Your task to perform on an android device: turn off notifications settings in the gmail app Image 0: 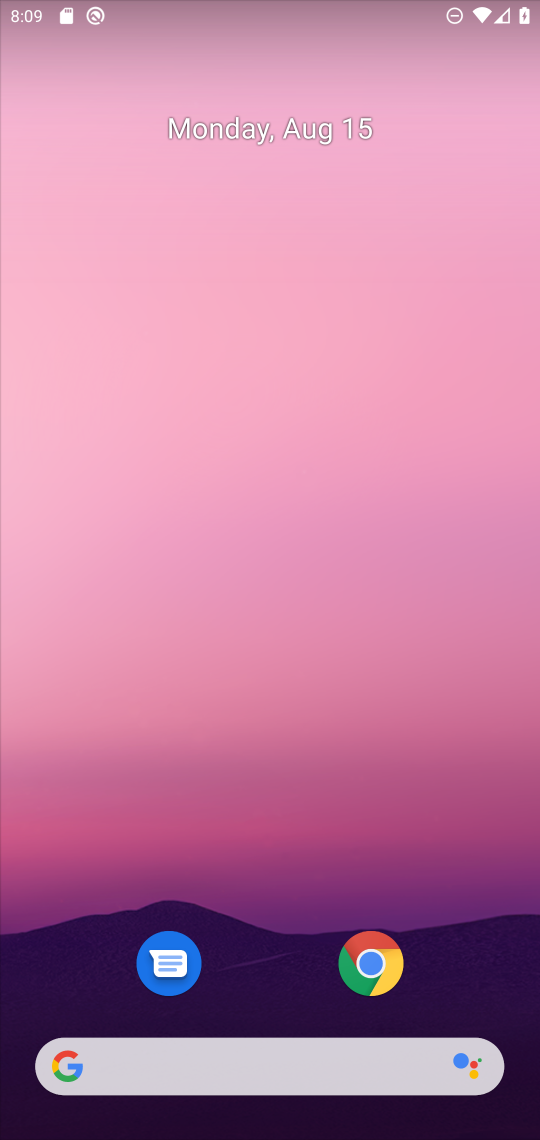
Step 0: drag from (294, 985) to (289, 3)
Your task to perform on an android device: turn off notifications settings in the gmail app Image 1: 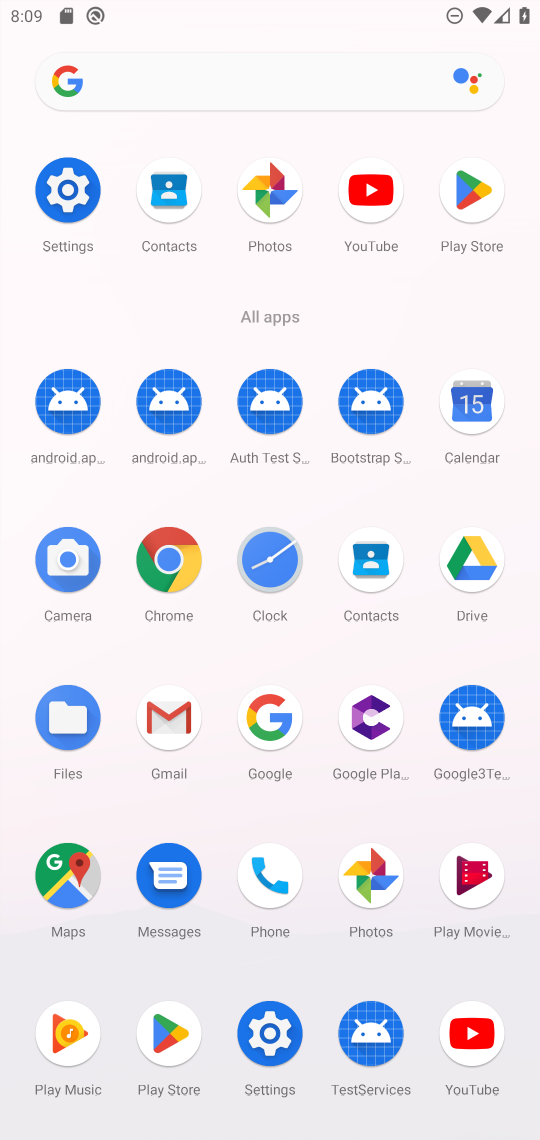
Step 1: click (78, 170)
Your task to perform on an android device: turn off notifications settings in the gmail app Image 2: 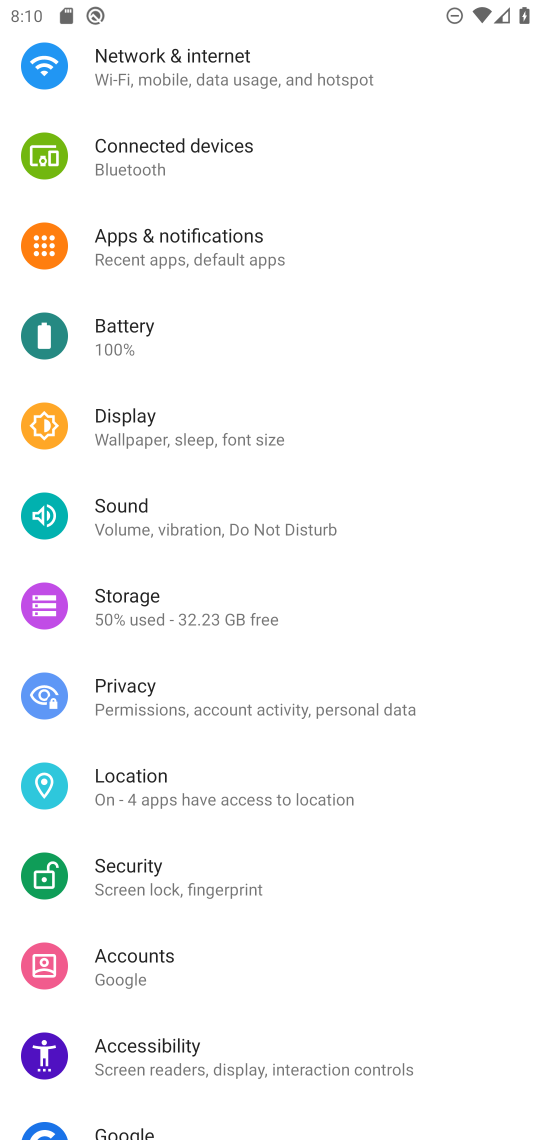
Step 2: click (159, 226)
Your task to perform on an android device: turn off notifications settings in the gmail app Image 3: 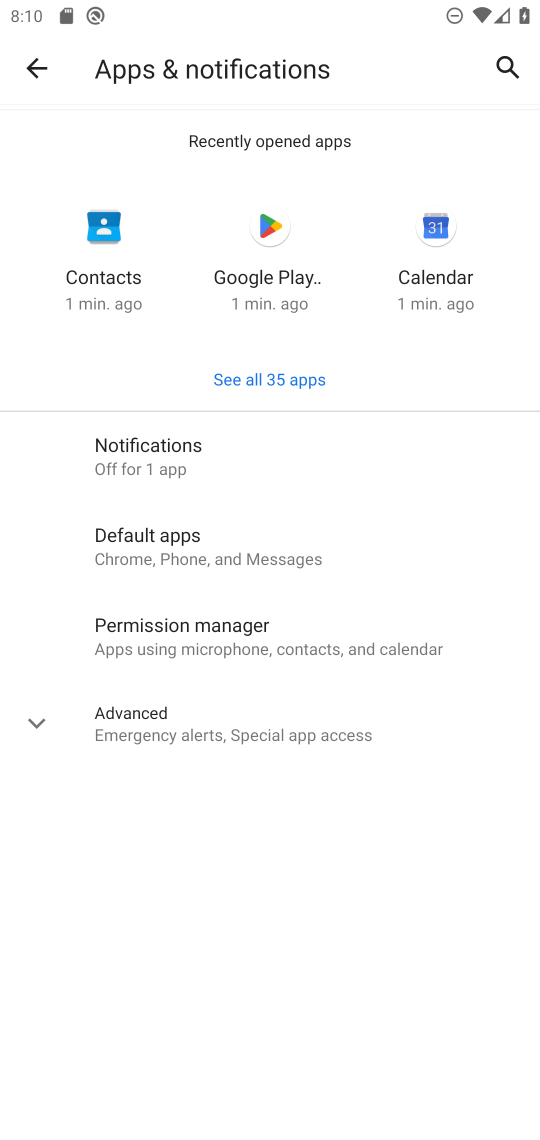
Step 3: click (335, 372)
Your task to perform on an android device: turn off notifications settings in the gmail app Image 4: 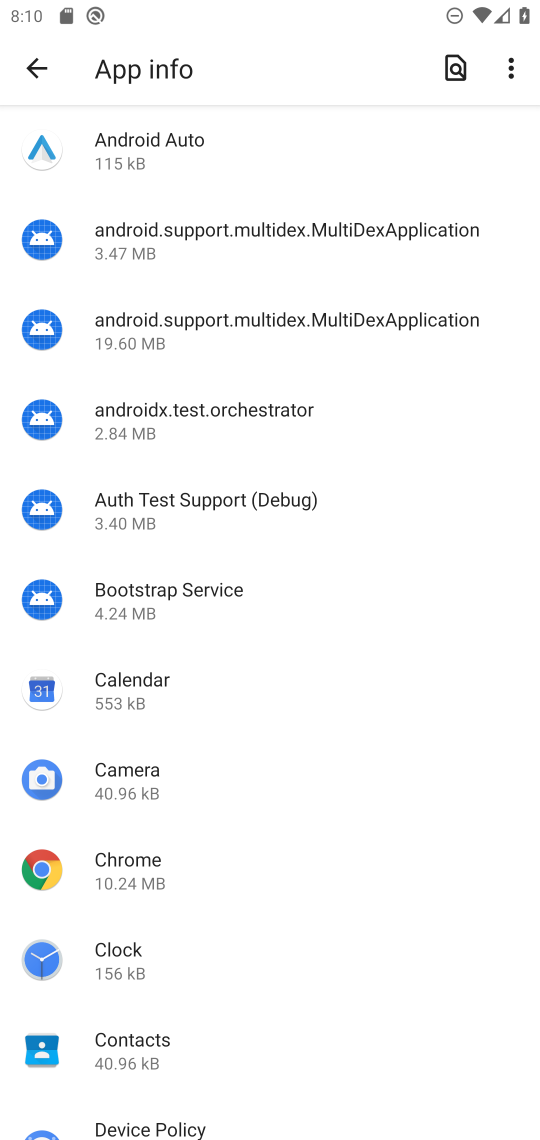
Step 4: drag from (155, 1092) to (198, 215)
Your task to perform on an android device: turn off notifications settings in the gmail app Image 5: 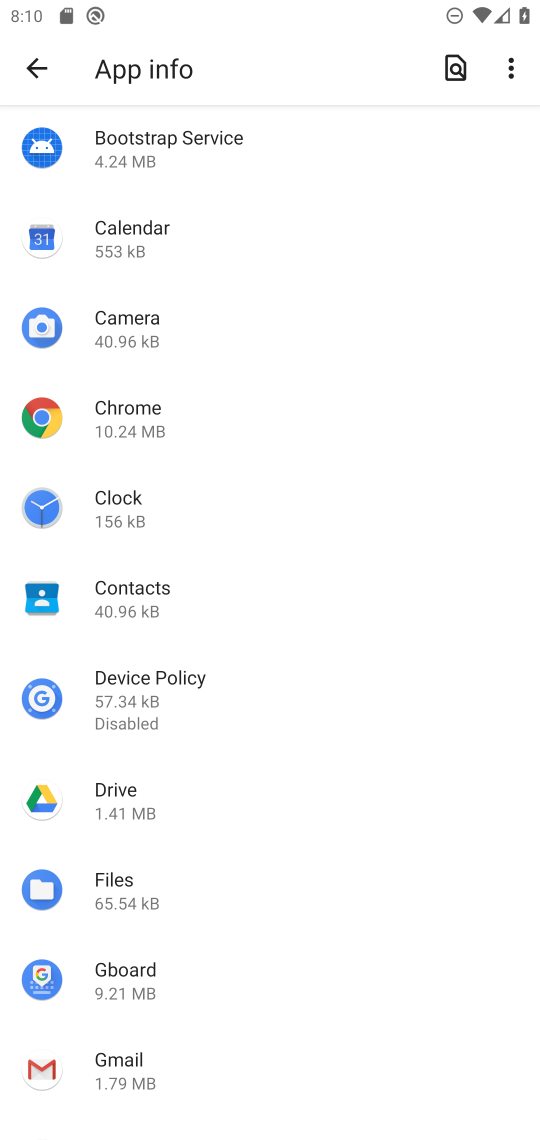
Step 5: click (216, 1068)
Your task to perform on an android device: turn off notifications settings in the gmail app Image 6: 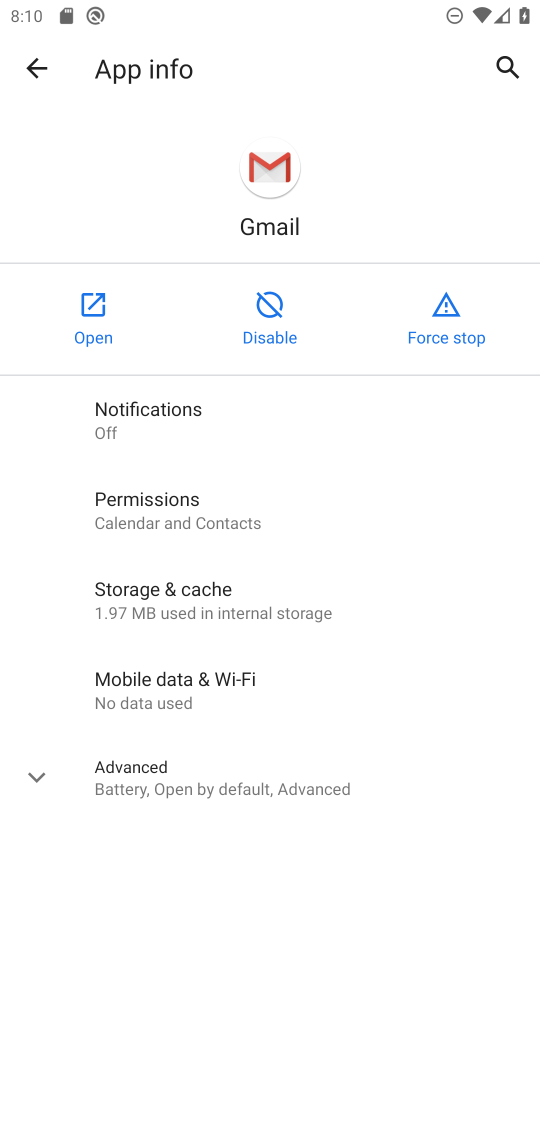
Step 6: task complete